Your task to perform on an android device: Go to eBay Image 0: 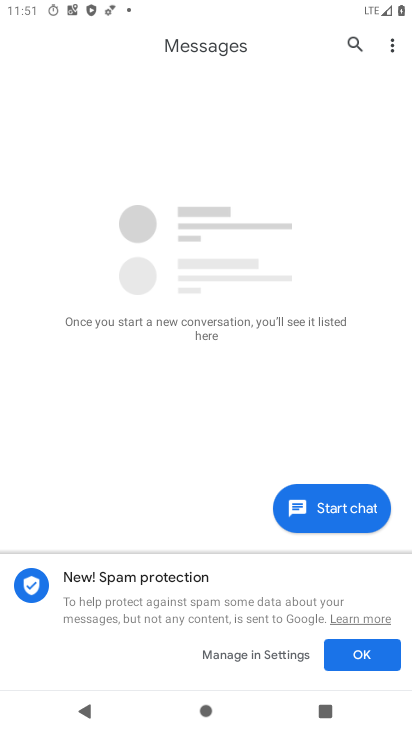
Step 0: press home button
Your task to perform on an android device: Go to eBay Image 1: 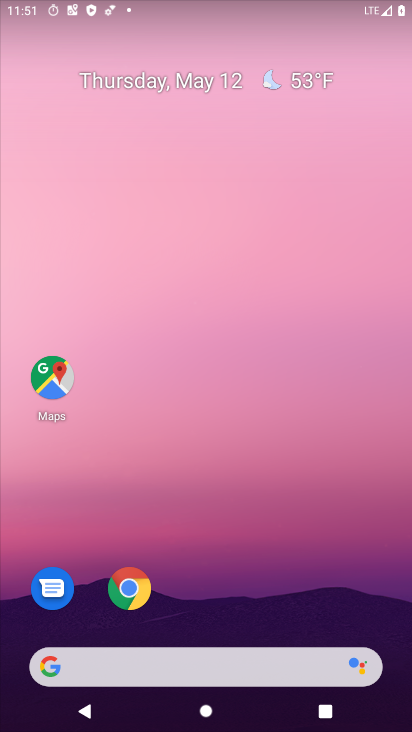
Step 1: click (140, 588)
Your task to perform on an android device: Go to eBay Image 2: 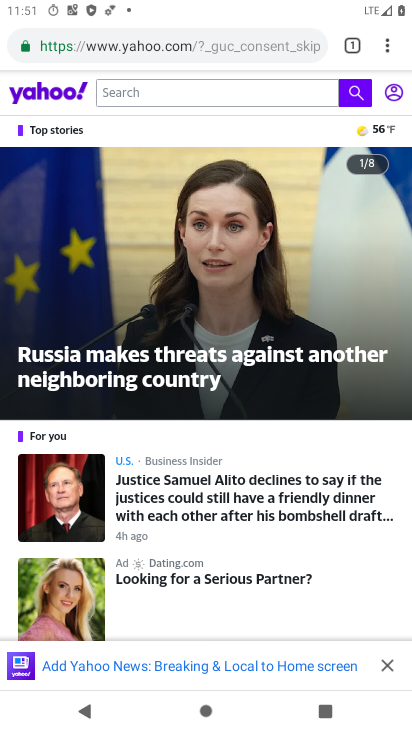
Step 2: click (222, 45)
Your task to perform on an android device: Go to eBay Image 3: 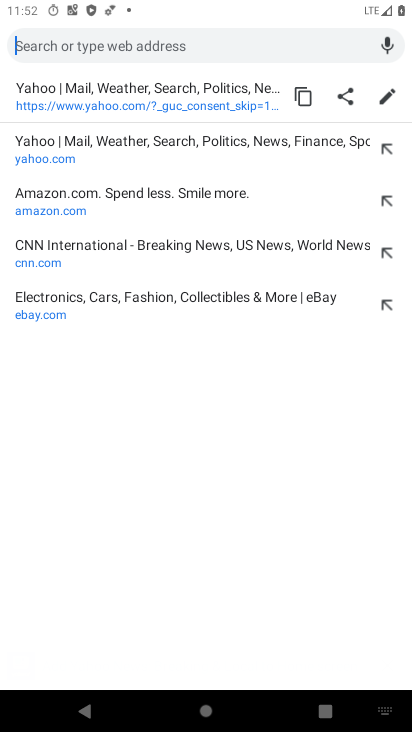
Step 3: type "ebay"
Your task to perform on an android device: Go to eBay Image 4: 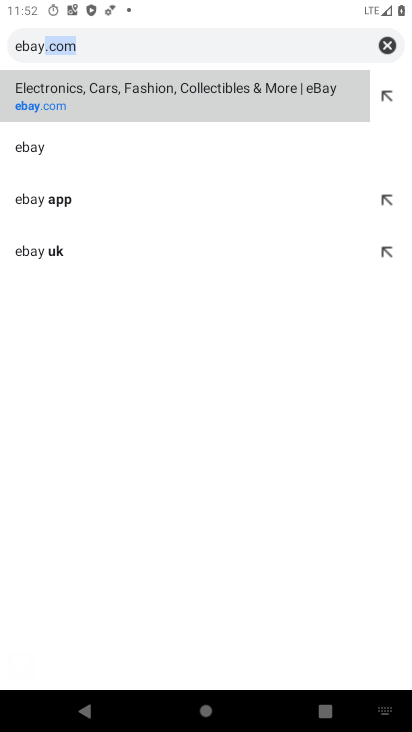
Step 4: click (75, 109)
Your task to perform on an android device: Go to eBay Image 5: 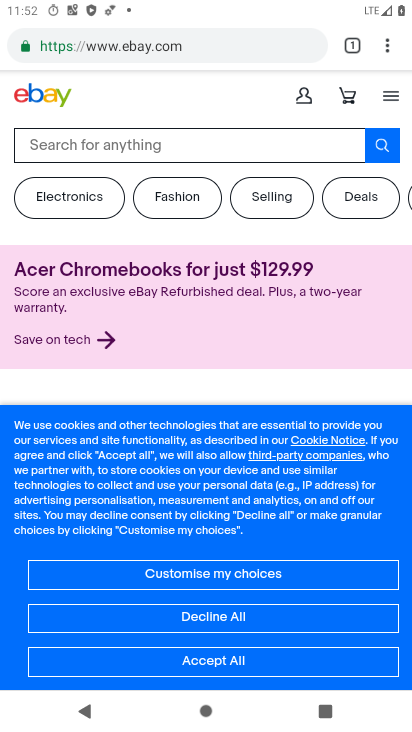
Step 5: task complete